Your task to perform on an android device: find snoozed emails in the gmail app Image 0: 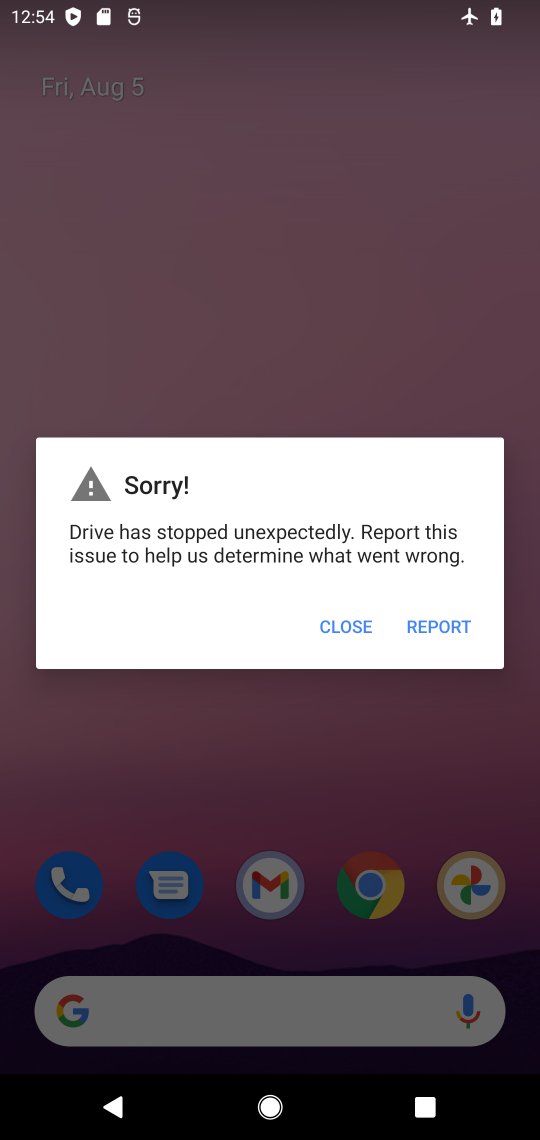
Step 0: press home button
Your task to perform on an android device: find snoozed emails in the gmail app Image 1: 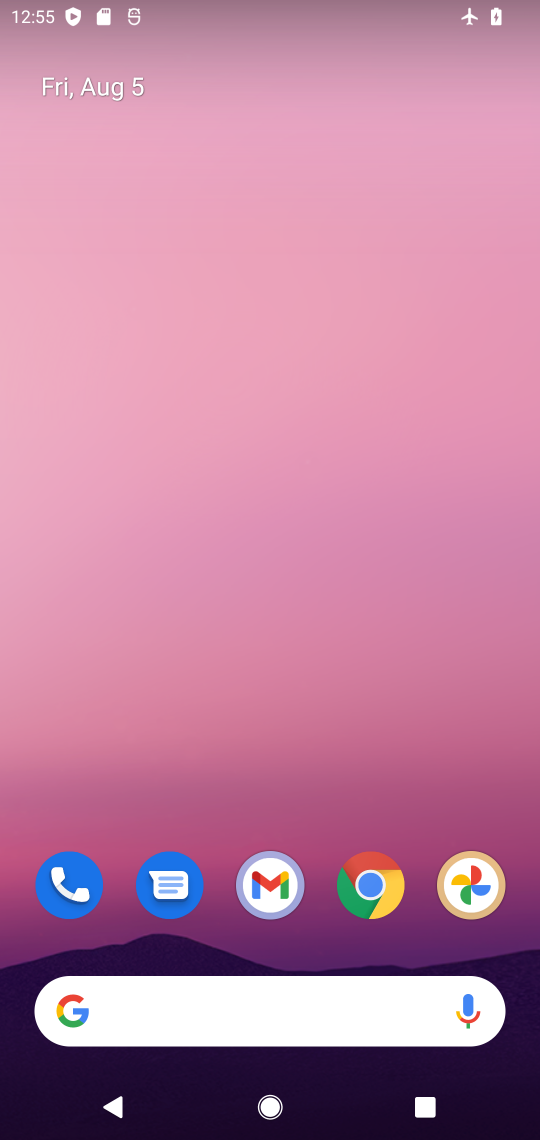
Step 1: click (274, 869)
Your task to perform on an android device: find snoozed emails in the gmail app Image 2: 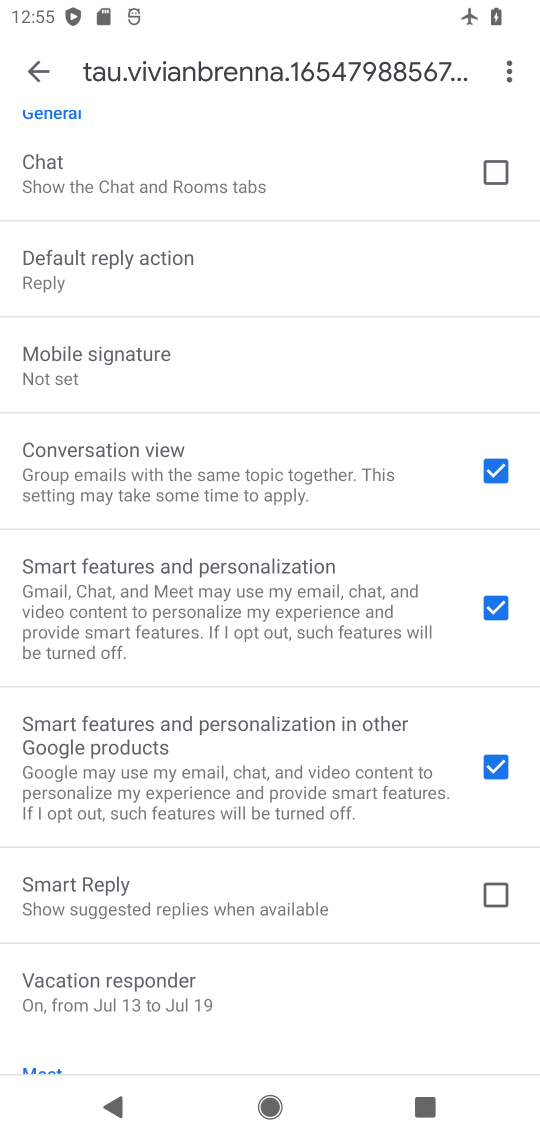
Step 2: click (41, 70)
Your task to perform on an android device: find snoozed emails in the gmail app Image 3: 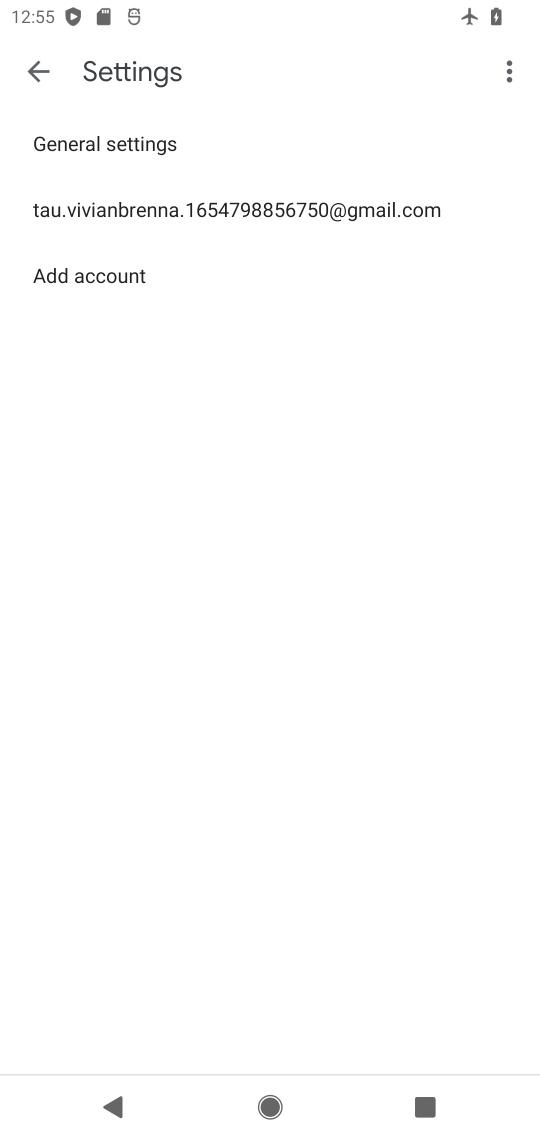
Step 3: click (41, 70)
Your task to perform on an android device: find snoozed emails in the gmail app Image 4: 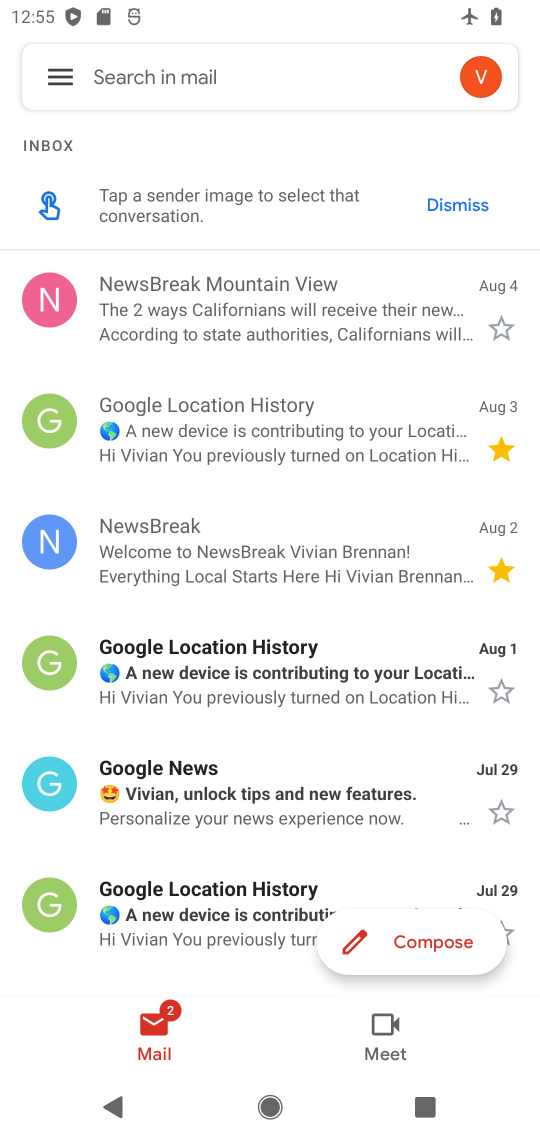
Step 4: click (61, 50)
Your task to perform on an android device: find snoozed emails in the gmail app Image 5: 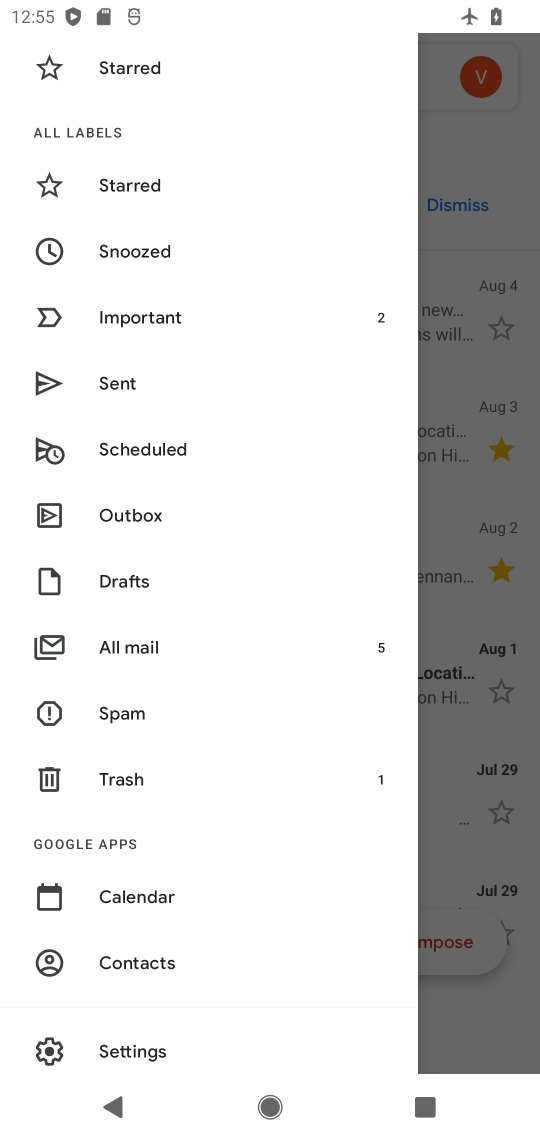
Step 5: click (136, 249)
Your task to perform on an android device: find snoozed emails in the gmail app Image 6: 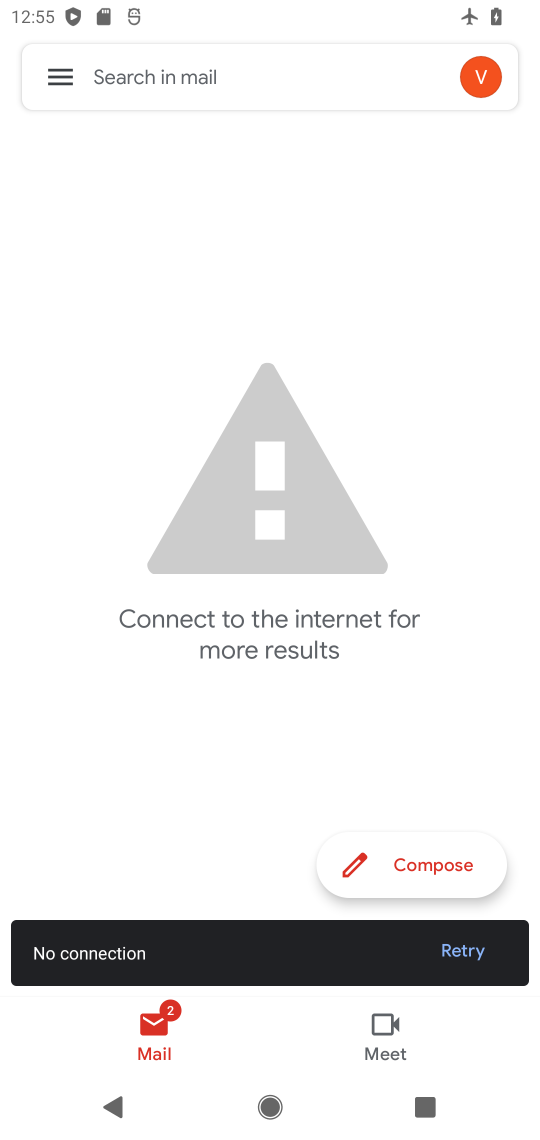
Step 6: task complete